Your task to perform on an android device: move a message to another label in the gmail app Image 0: 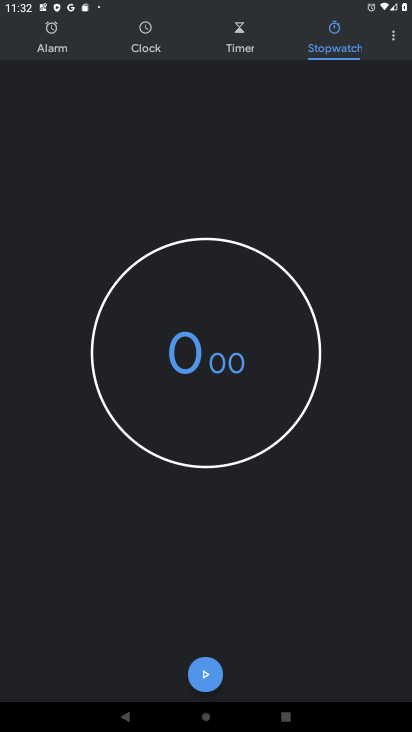
Step 0: press home button
Your task to perform on an android device: move a message to another label in the gmail app Image 1: 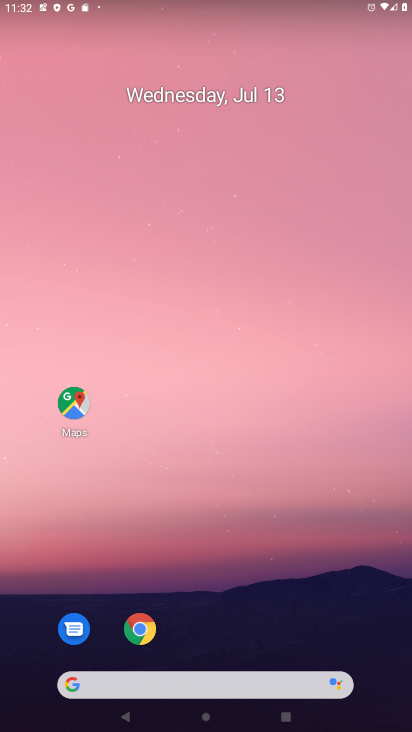
Step 1: drag from (291, 624) to (250, 350)
Your task to perform on an android device: move a message to another label in the gmail app Image 2: 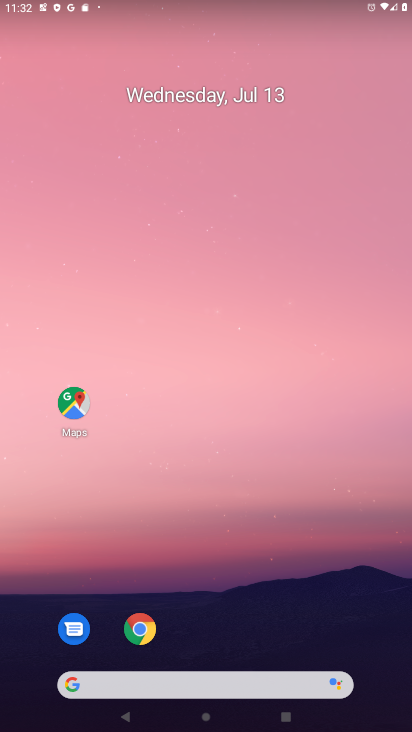
Step 2: drag from (249, 642) to (241, 285)
Your task to perform on an android device: move a message to another label in the gmail app Image 3: 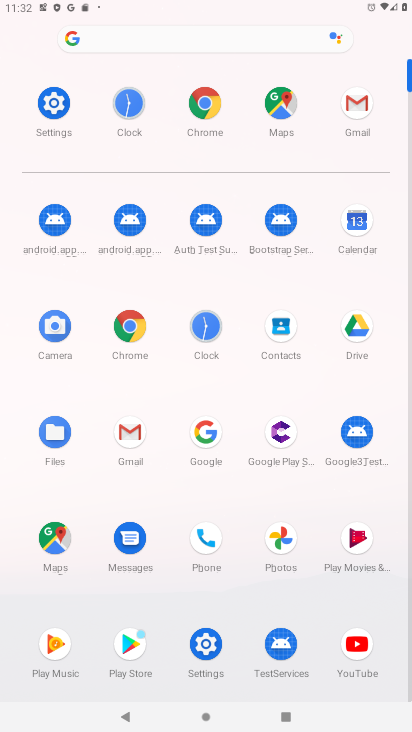
Step 3: click (127, 445)
Your task to perform on an android device: move a message to another label in the gmail app Image 4: 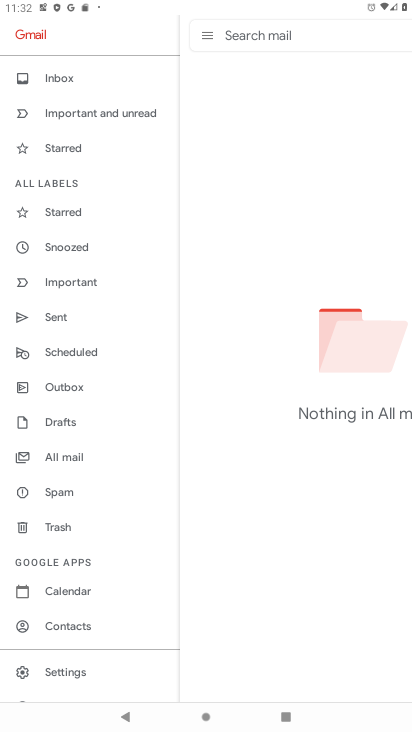
Step 4: click (83, 85)
Your task to perform on an android device: move a message to another label in the gmail app Image 5: 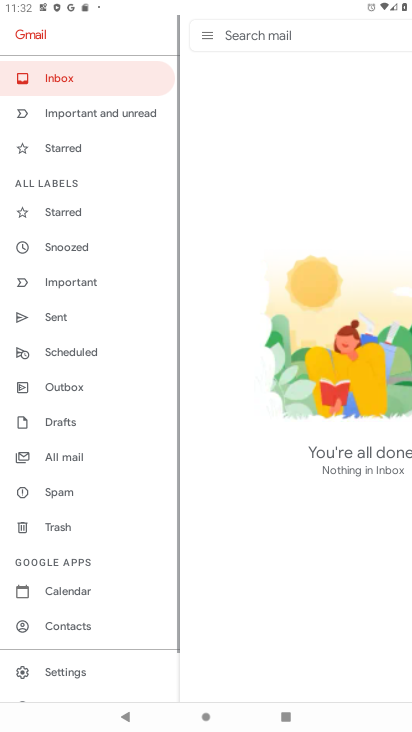
Step 5: task complete